Your task to perform on an android device: find snoozed emails in the gmail app Image 0: 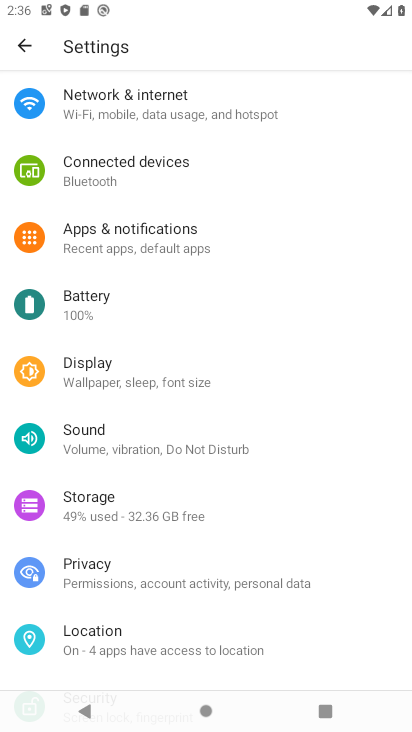
Step 0: press home button
Your task to perform on an android device: find snoozed emails in the gmail app Image 1: 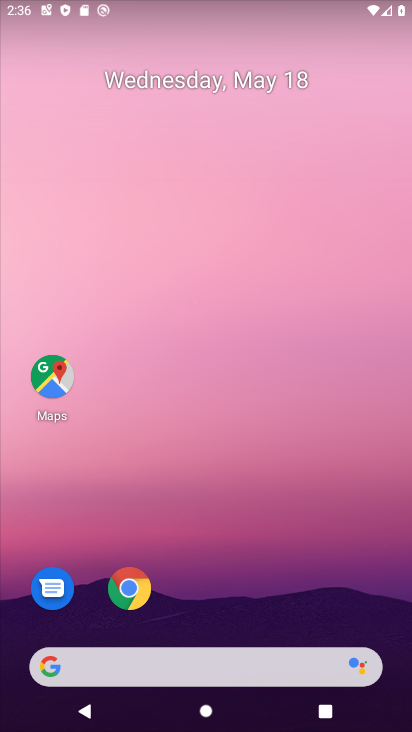
Step 1: drag from (330, 590) to (319, 101)
Your task to perform on an android device: find snoozed emails in the gmail app Image 2: 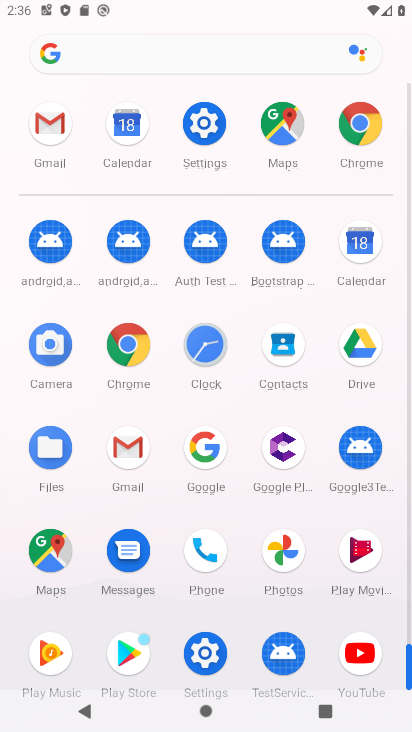
Step 2: click (127, 442)
Your task to perform on an android device: find snoozed emails in the gmail app Image 3: 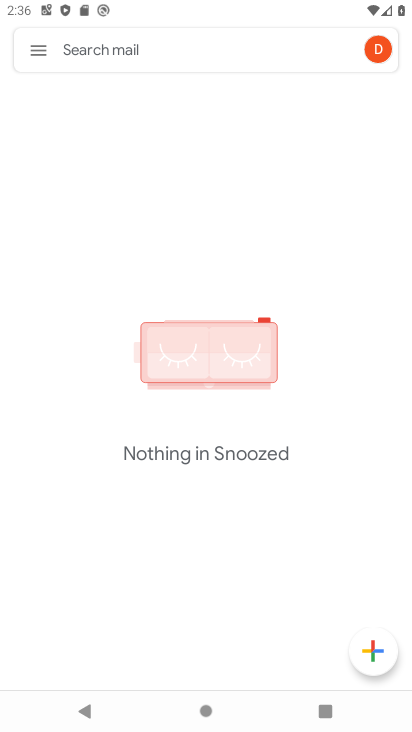
Step 3: click (33, 50)
Your task to perform on an android device: find snoozed emails in the gmail app Image 4: 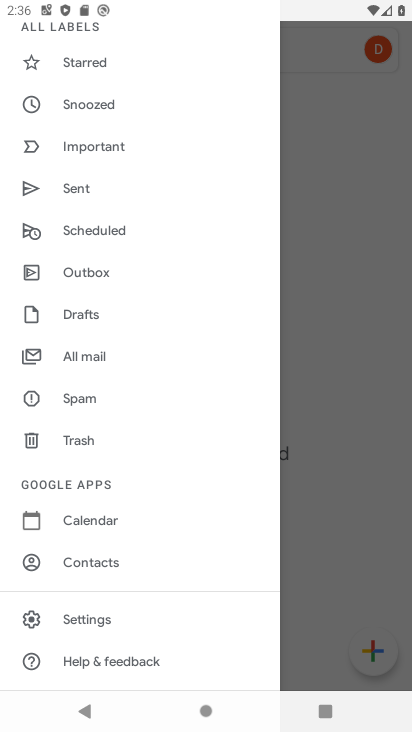
Step 4: drag from (169, 512) to (196, 366)
Your task to perform on an android device: find snoozed emails in the gmail app Image 5: 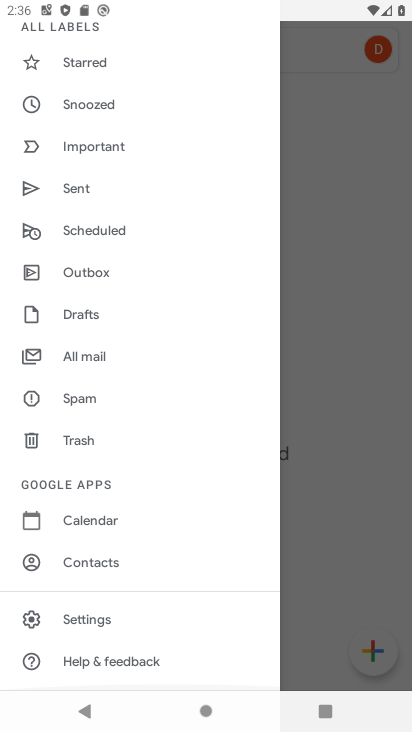
Step 5: drag from (208, 260) to (209, 410)
Your task to perform on an android device: find snoozed emails in the gmail app Image 6: 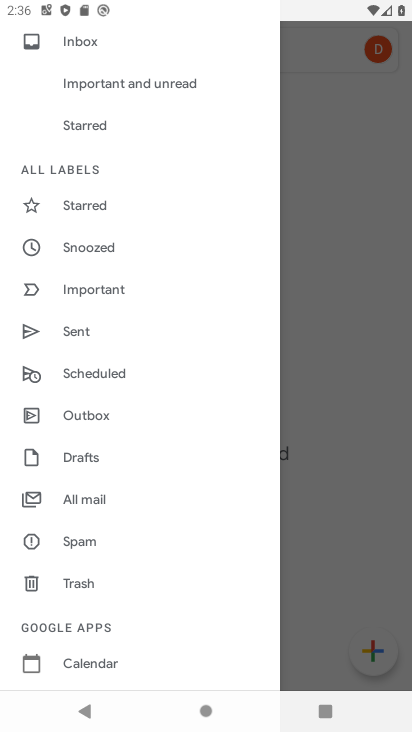
Step 6: drag from (202, 236) to (196, 350)
Your task to perform on an android device: find snoozed emails in the gmail app Image 7: 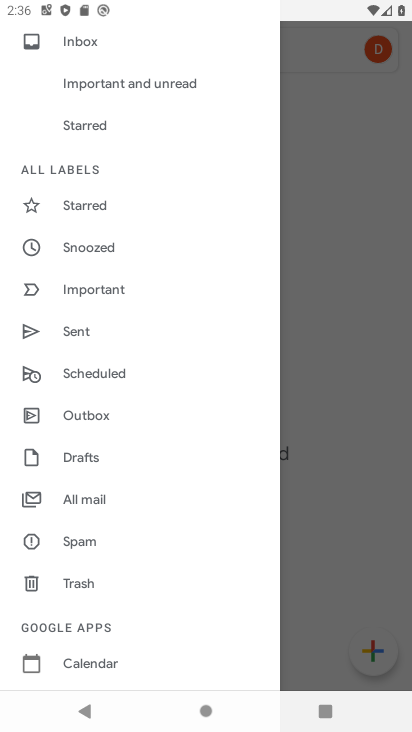
Step 7: click (120, 255)
Your task to perform on an android device: find snoozed emails in the gmail app Image 8: 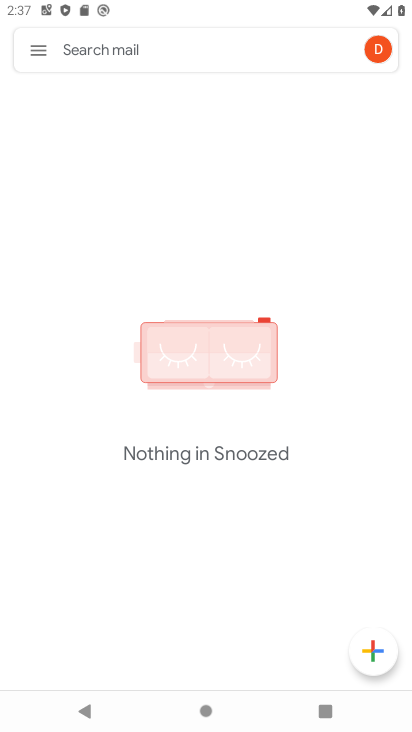
Step 8: task complete